Your task to perform on an android device: clear history in the chrome app Image 0: 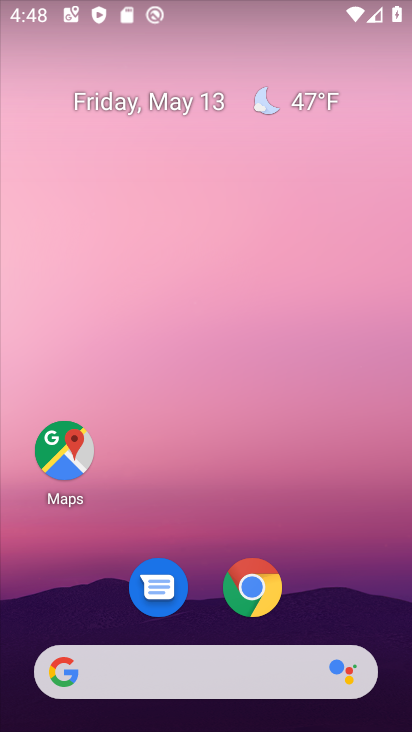
Step 0: click (272, 599)
Your task to perform on an android device: clear history in the chrome app Image 1: 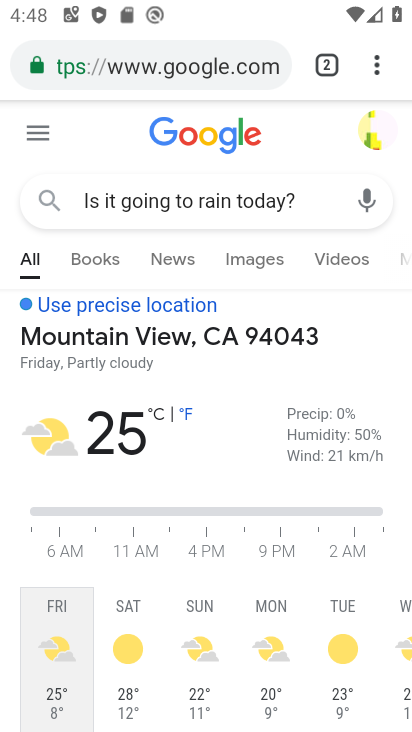
Step 1: drag from (371, 56) to (199, 368)
Your task to perform on an android device: clear history in the chrome app Image 2: 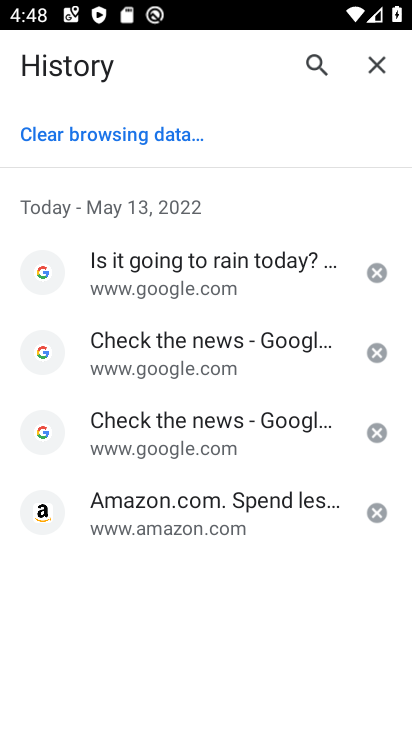
Step 2: click (54, 266)
Your task to perform on an android device: clear history in the chrome app Image 3: 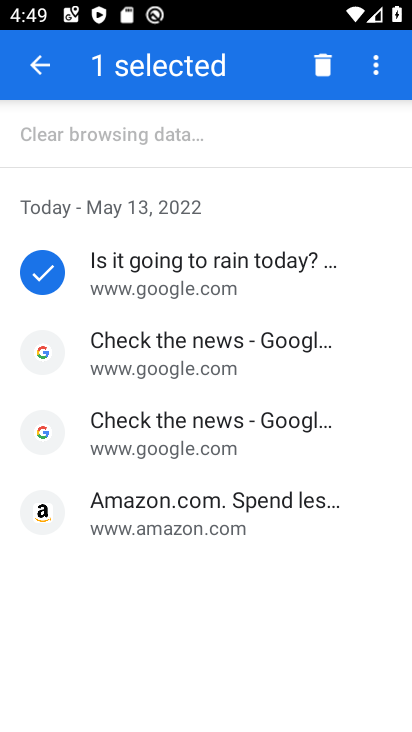
Step 3: click (38, 359)
Your task to perform on an android device: clear history in the chrome app Image 4: 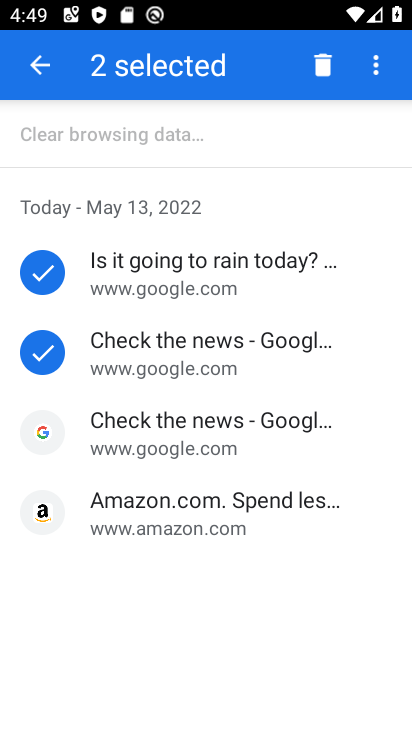
Step 4: click (53, 439)
Your task to perform on an android device: clear history in the chrome app Image 5: 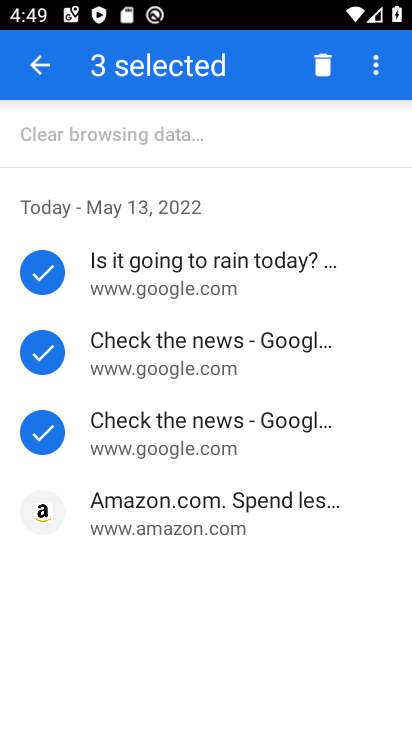
Step 5: click (34, 514)
Your task to perform on an android device: clear history in the chrome app Image 6: 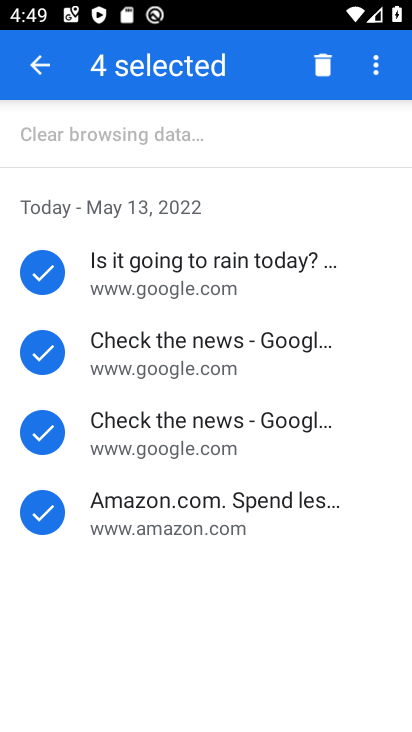
Step 6: click (325, 59)
Your task to perform on an android device: clear history in the chrome app Image 7: 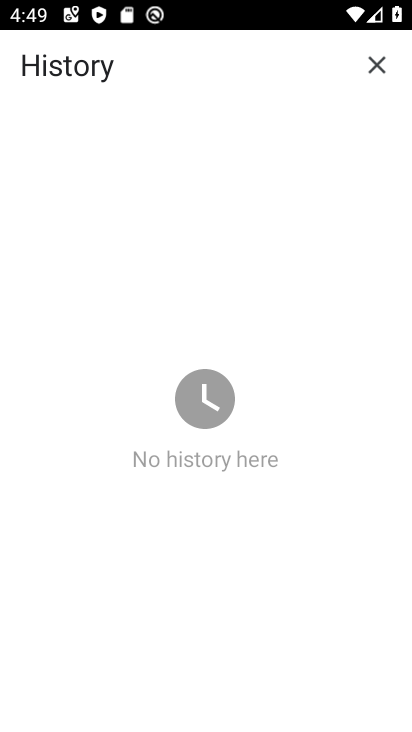
Step 7: task complete